Your task to perform on an android device: toggle notifications settings in the gmail app Image 0: 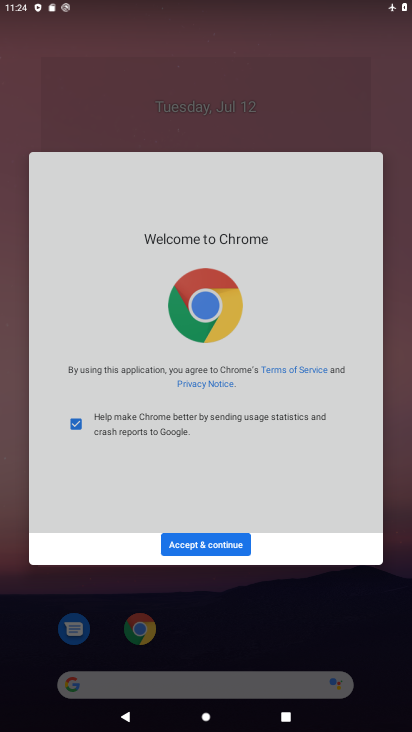
Step 0: press home button
Your task to perform on an android device: toggle notifications settings in the gmail app Image 1: 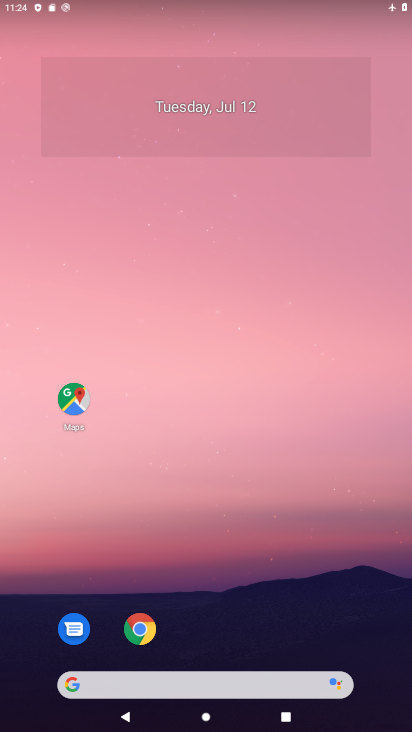
Step 1: drag from (200, 647) to (165, 13)
Your task to perform on an android device: toggle notifications settings in the gmail app Image 2: 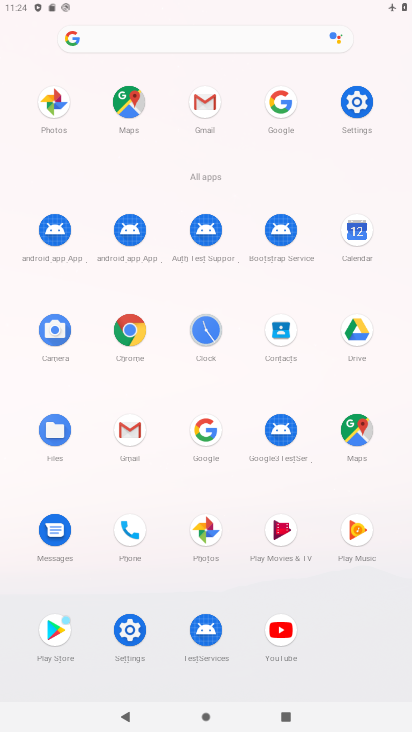
Step 2: click (130, 434)
Your task to perform on an android device: toggle notifications settings in the gmail app Image 3: 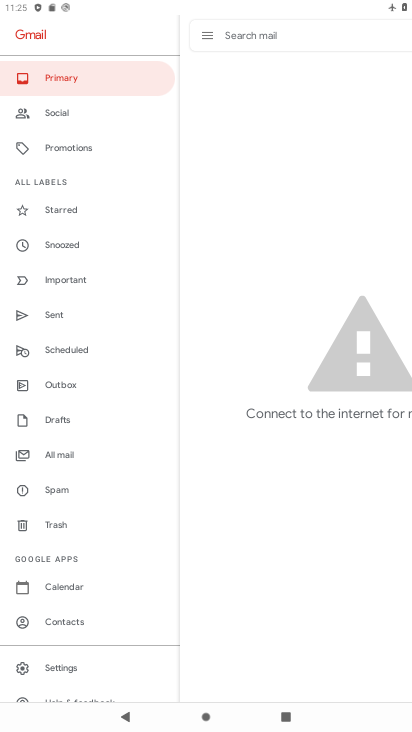
Step 3: click (48, 666)
Your task to perform on an android device: toggle notifications settings in the gmail app Image 4: 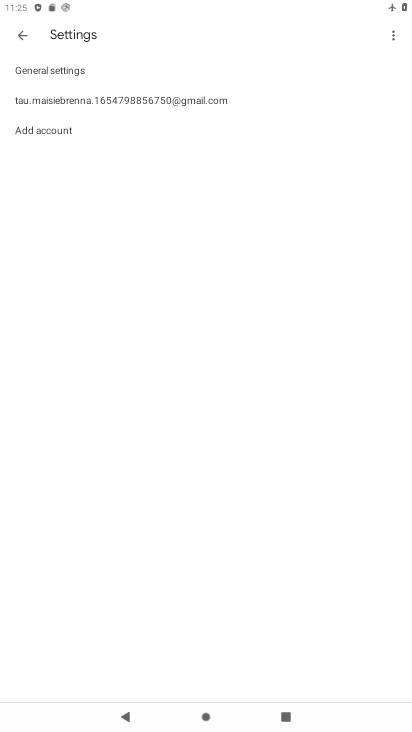
Step 4: click (61, 98)
Your task to perform on an android device: toggle notifications settings in the gmail app Image 5: 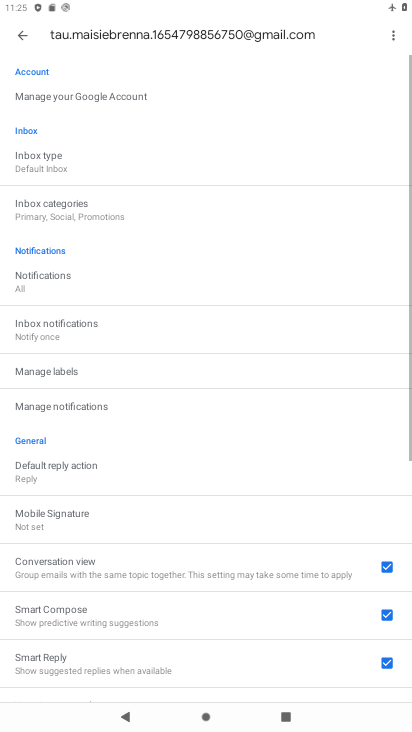
Step 5: click (19, 36)
Your task to perform on an android device: toggle notifications settings in the gmail app Image 6: 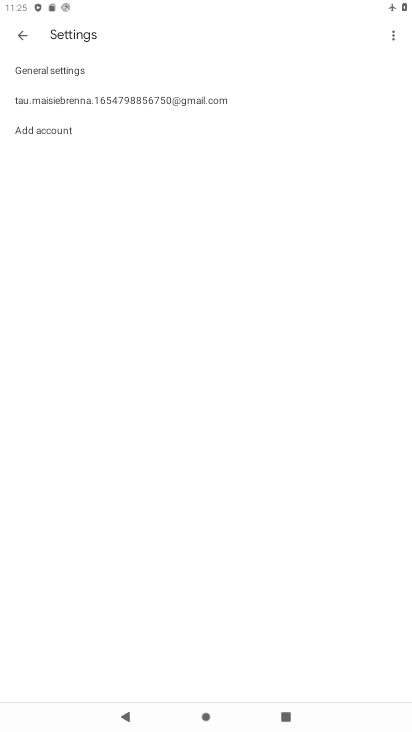
Step 6: click (68, 65)
Your task to perform on an android device: toggle notifications settings in the gmail app Image 7: 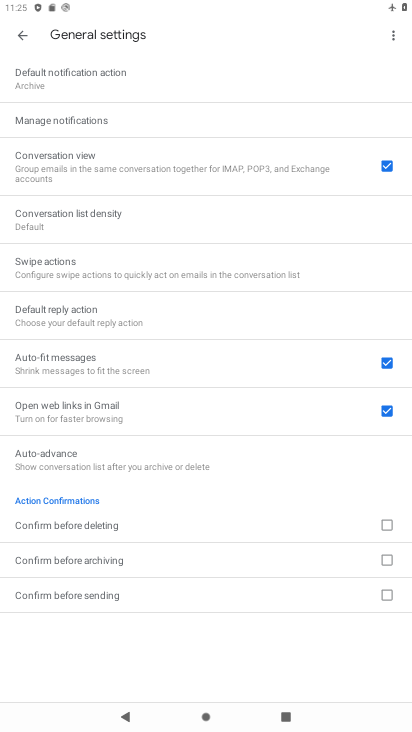
Step 7: click (56, 121)
Your task to perform on an android device: toggle notifications settings in the gmail app Image 8: 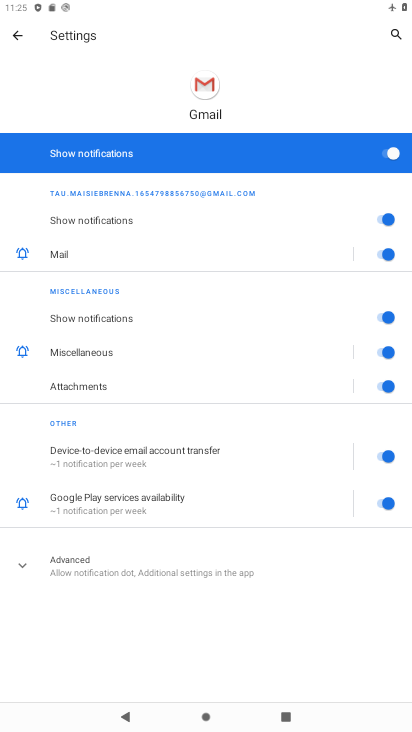
Step 8: click (392, 158)
Your task to perform on an android device: toggle notifications settings in the gmail app Image 9: 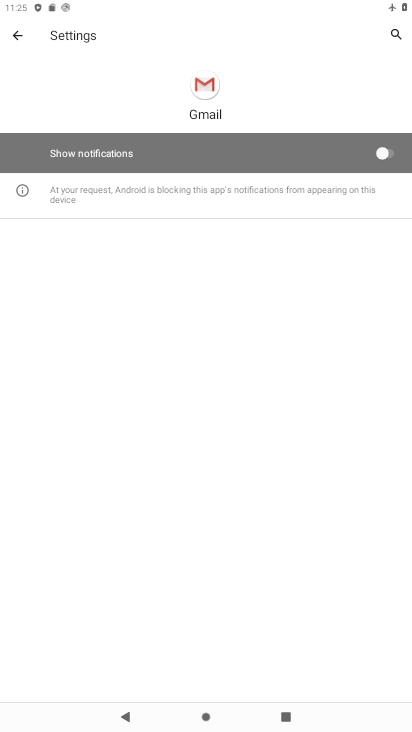
Step 9: task complete